Your task to perform on an android device: read, delete, or share a saved page in the chrome app Image 0: 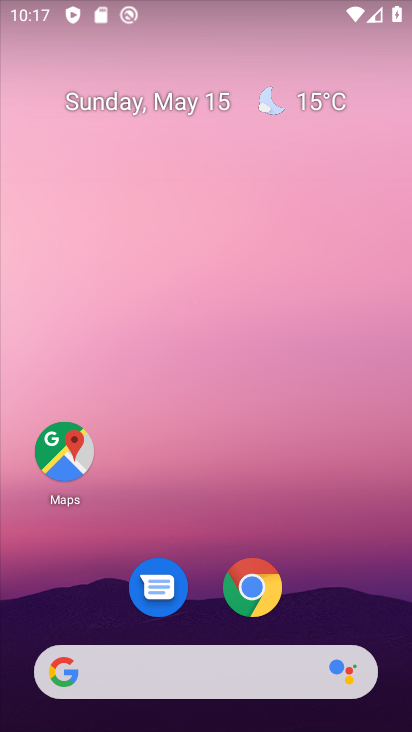
Step 0: drag from (88, 629) to (173, 237)
Your task to perform on an android device: read, delete, or share a saved page in the chrome app Image 1: 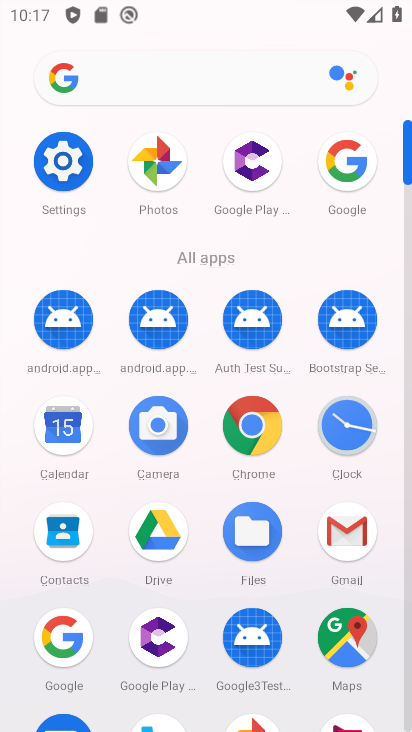
Step 1: click (280, 425)
Your task to perform on an android device: read, delete, or share a saved page in the chrome app Image 2: 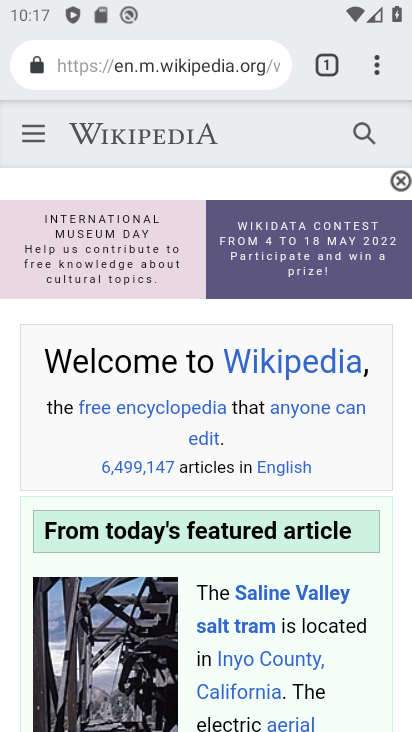
Step 2: drag from (390, 71) to (266, 512)
Your task to perform on an android device: read, delete, or share a saved page in the chrome app Image 3: 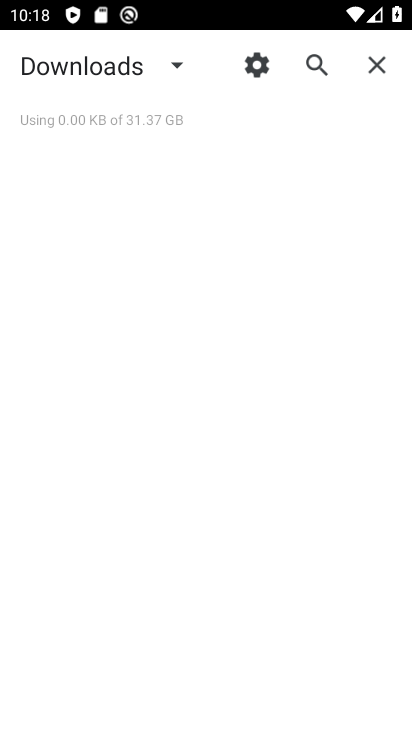
Step 3: click (140, 72)
Your task to perform on an android device: read, delete, or share a saved page in the chrome app Image 4: 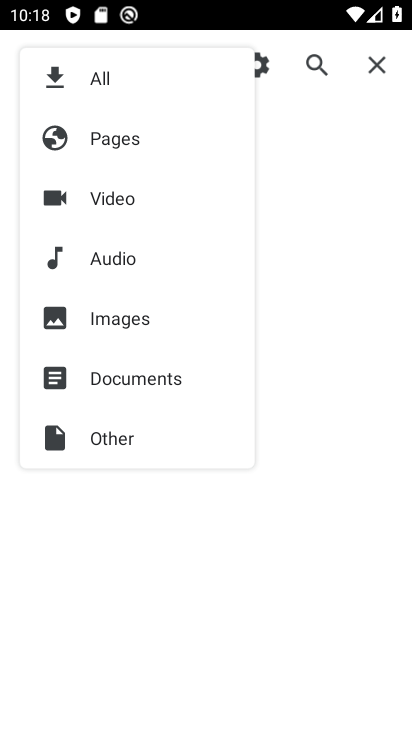
Step 4: click (148, 155)
Your task to perform on an android device: read, delete, or share a saved page in the chrome app Image 5: 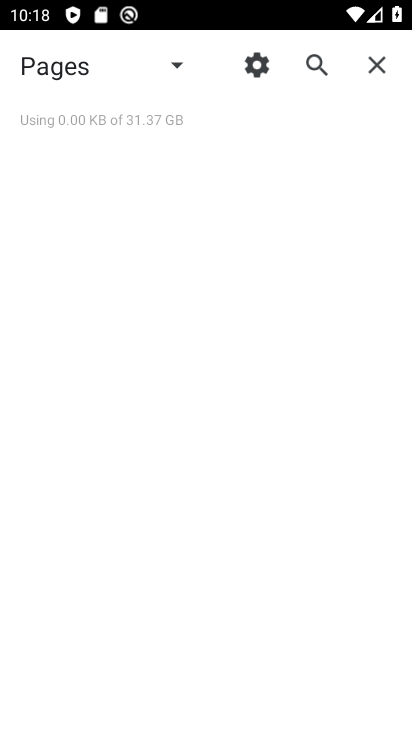
Step 5: task complete